Your task to perform on an android device: turn on airplane mode Image 0: 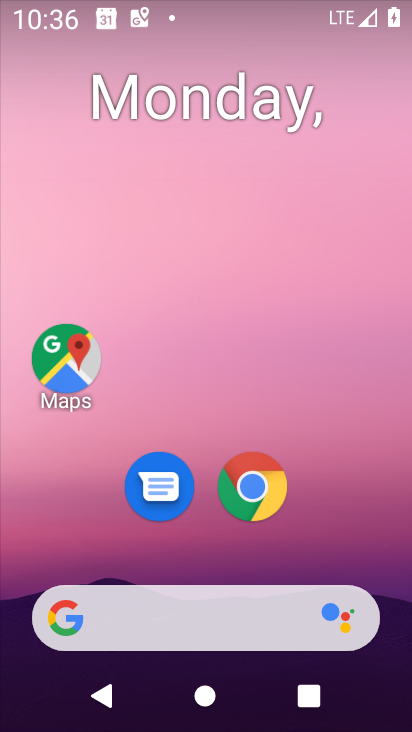
Step 0: drag from (343, 469) to (244, 13)
Your task to perform on an android device: turn on airplane mode Image 1: 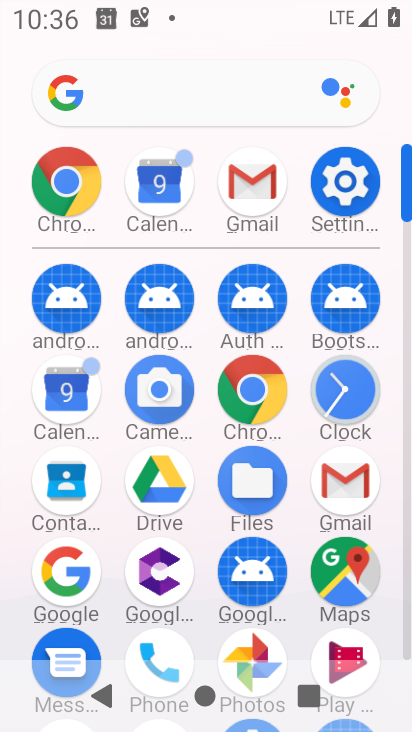
Step 1: click (343, 181)
Your task to perform on an android device: turn on airplane mode Image 2: 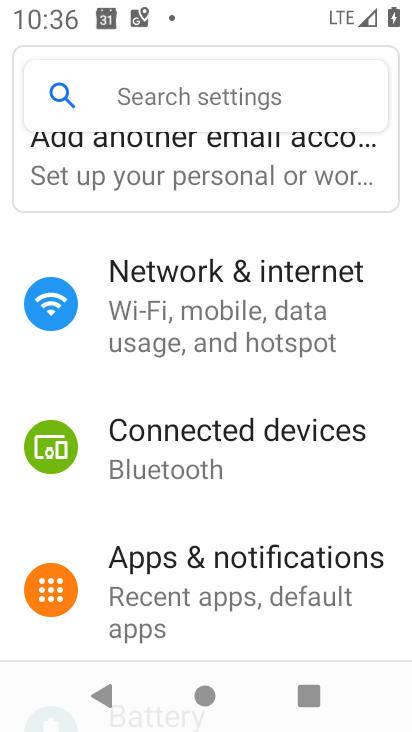
Step 2: drag from (292, 538) to (280, 183)
Your task to perform on an android device: turn on airplane mode Image 3: 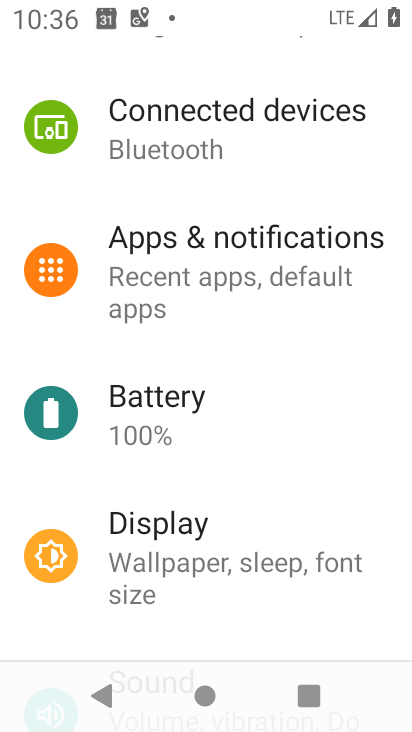
Step 3: drag from (255, 477) to (244, 130)
Your task to perform on an android device: turn on airplane mode Image 4: 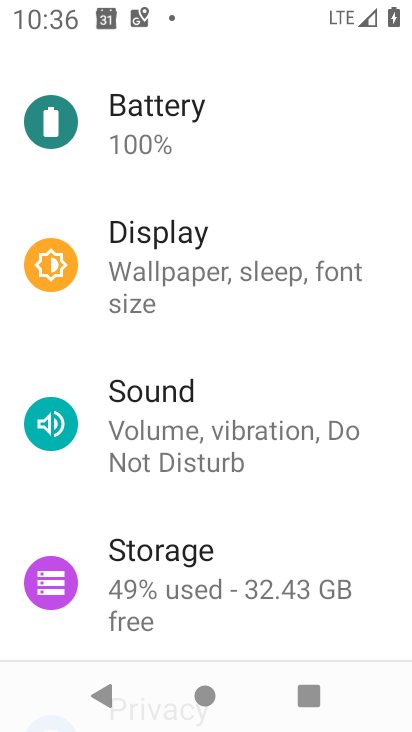
Step 4: drag from (237, 490) to (253, 58)
Your task to perform on an android device: turn on airplane mode Image 5: 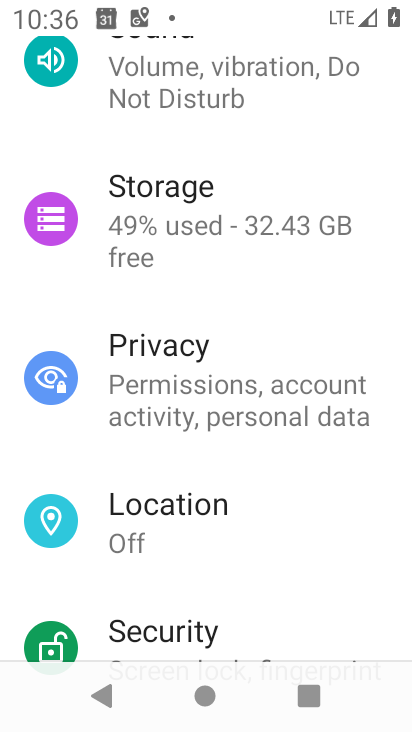
Step 5: drag from (264, 498) to (276, 120)
Your task to perform on an android device: turn on airplane mode Image 6: 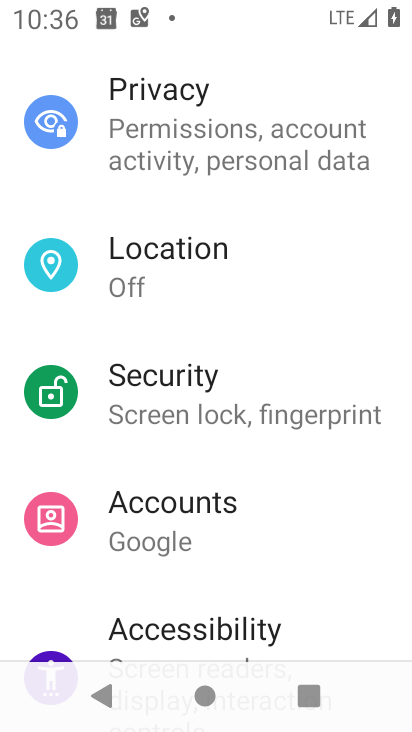
Step 6: drag from (221, 501) to (252, 128)
Your task to perform on an android device: turn on airplane mode Image 7: 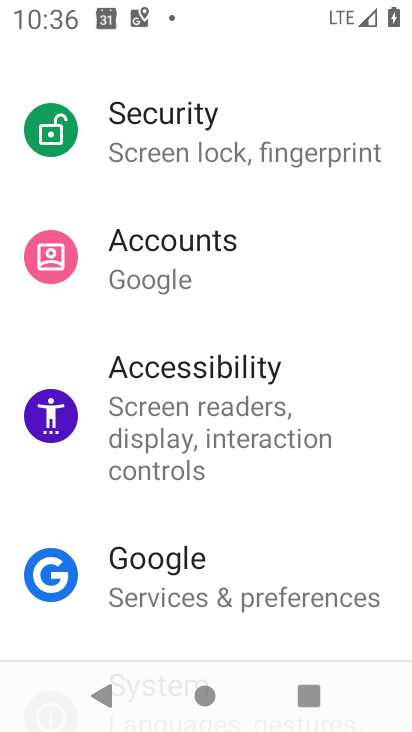
Step 7: drag from (252, 122) to (254, 551)
Your task to perform on an android device: turn on airplane mode Image 8: 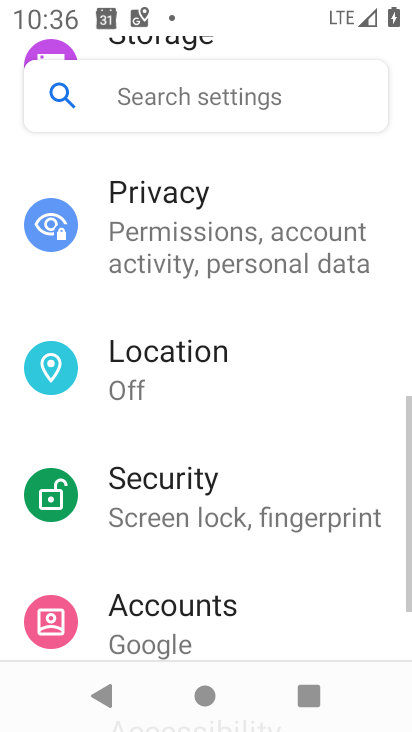
Step 8: drag from (247, 268) to (254, 606)
Your task to perform on an android device: turn on airplane mode Image 9: 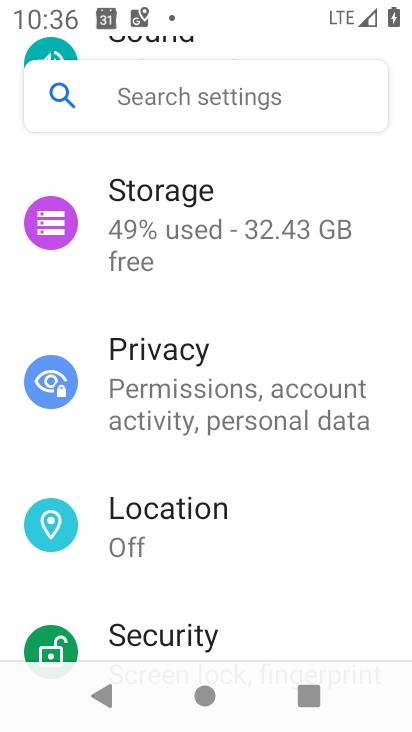
Step 9: drag from (250, 267) to (264, 616)
Your task to perform on an android device: turn on airplane mode Image 10: 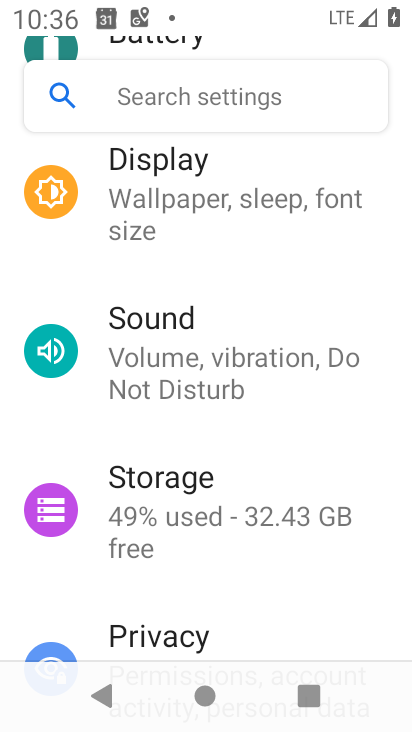
Step 10: drag from (229, 251) to (263, 660)
Your task to perform on an android device: turn on airplane mode Image 11: 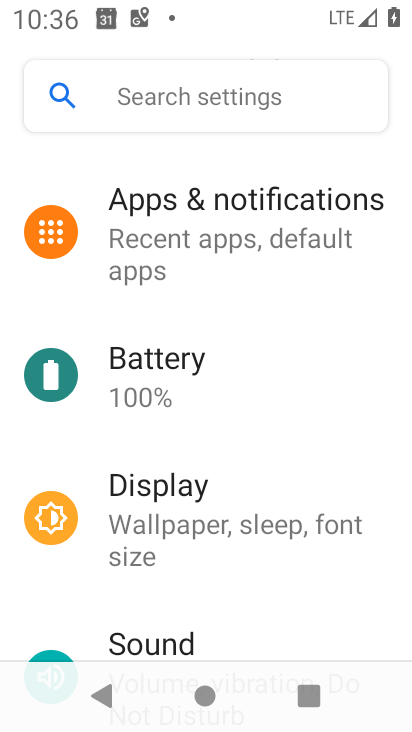
Step 11: drag from (245, 308) to (253, 613)
Your task to perform on an android device: turn on airplane mode Image 12: 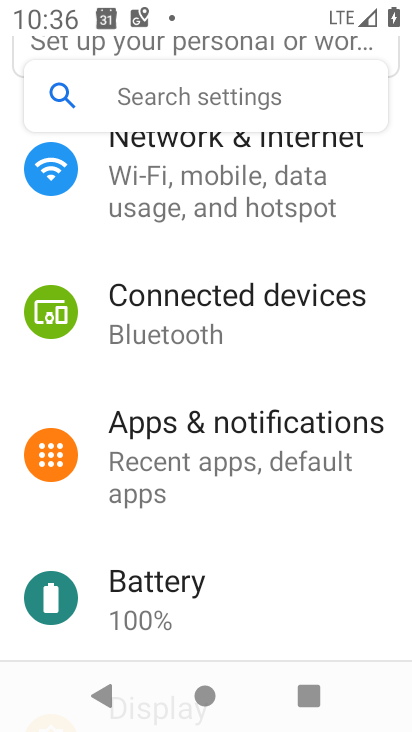
Step 12: drag from (251, 259) to (268, 622)
Your task to perform on an android device: turn on airplane mode Image 13: 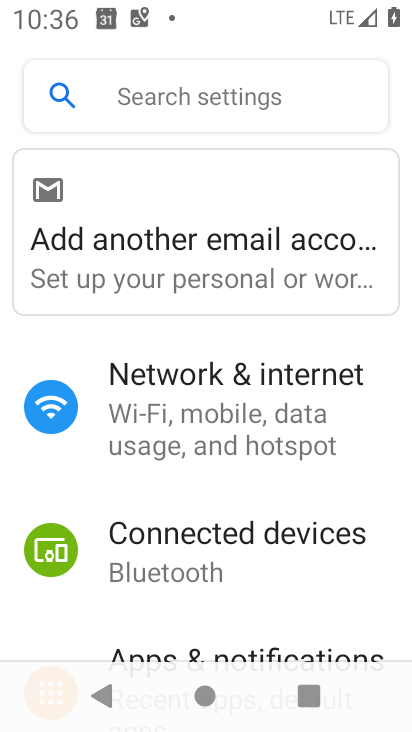
Step 13: click (244, 427)
Your task to perform on an android device: turn on airplane mode Image 14: 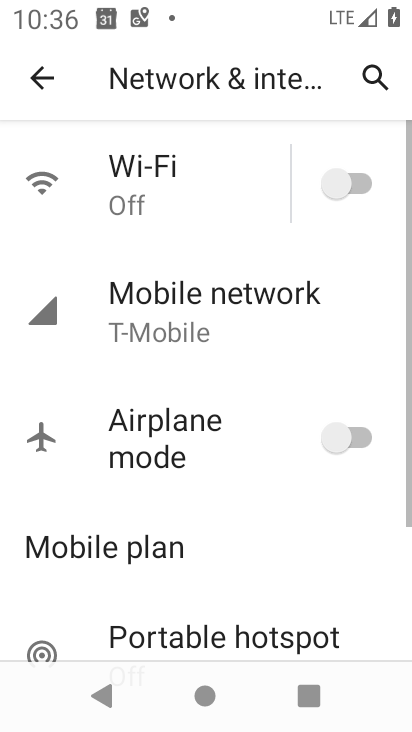
Step 14: drag from (241, 558) to (231, 342)
Your task to perform on an android device: turn on airplane mode Image 15: 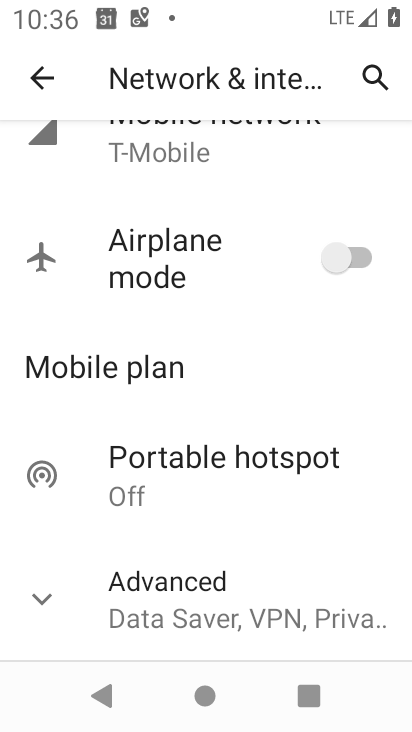
Step 15: click (361, 252)
Your task to perform on an android device: turn on airplane mode Image 16: 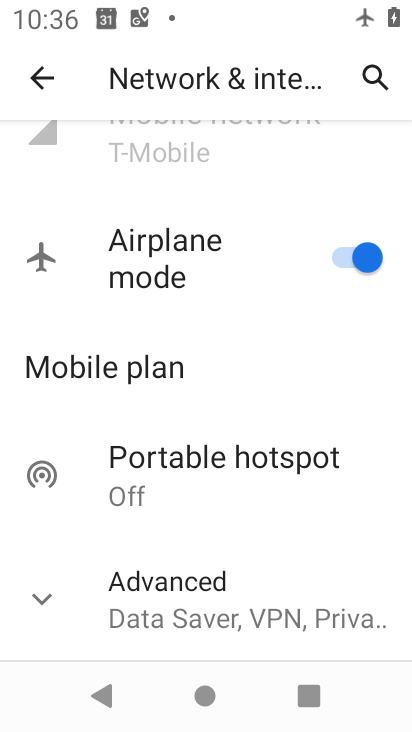
Step 16: task complete